Your task to perform on an android device: Go to Maps Image 0: 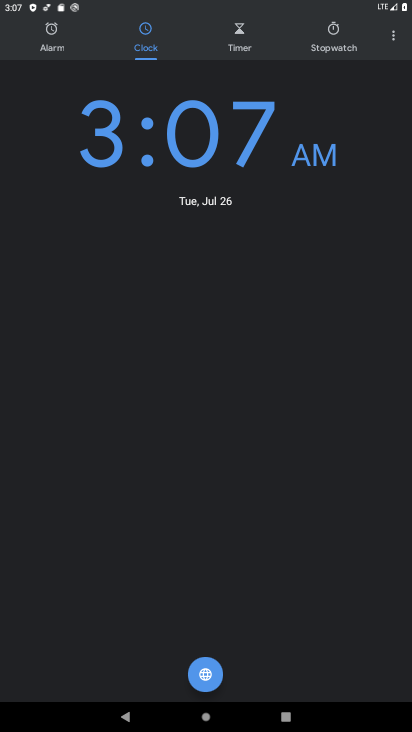
Step 0: press home button
Your task to perform on an android device: Go to Maps Image 1: 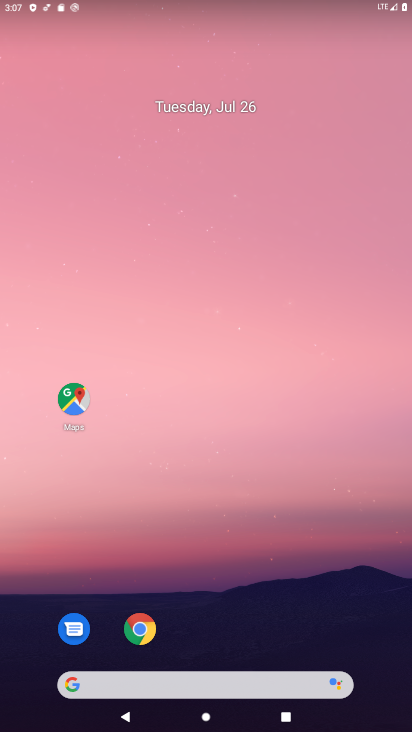
Step 1: drag from (223, 721) to (223, 272)
Your task to perform on an android device: Go to Maps Image 2: 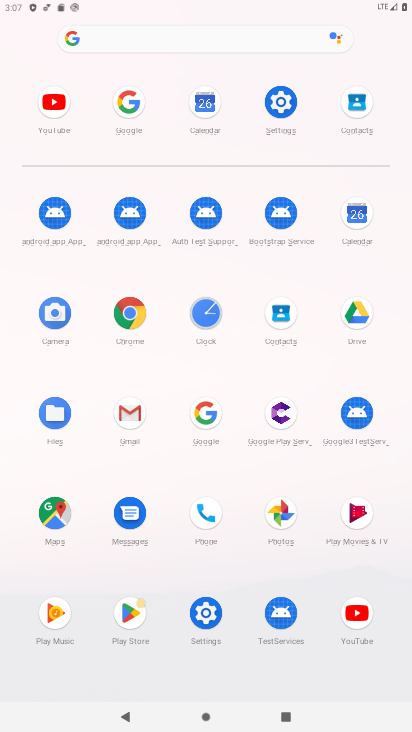
Step 2: click (48, 516)
Your task to perform on an android device: Go to Maps Image 3: 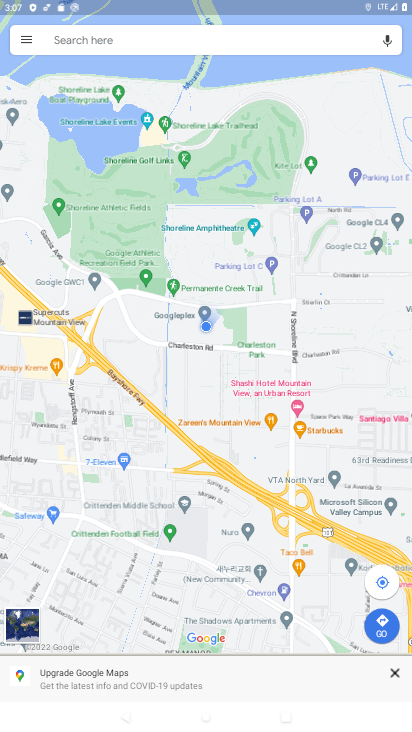
Step 3: task complete